Your task to perform on an android device: Open calendar and show me the third week of next month Image 0: 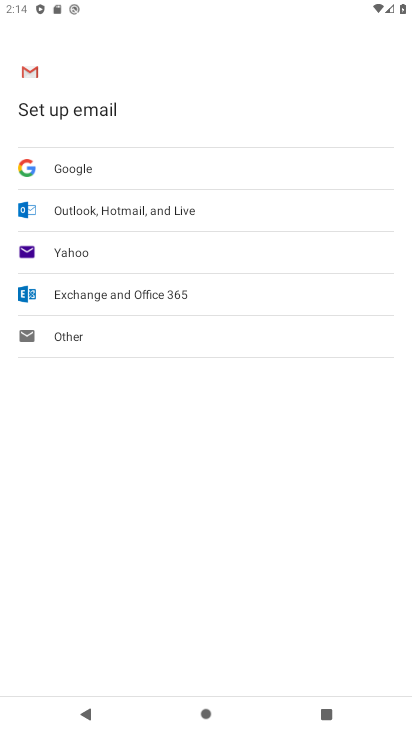
Step 0: press home button
Your task to perform on an android device: Open calendar and show me the third week of next month Image 1: 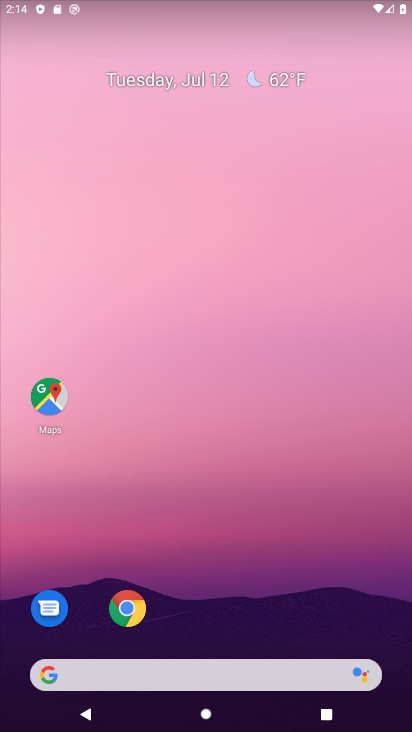
Step 1: drag from (138, 682) to (319, 131)
Your task to perform on an android device: Open calendar and show me the third week of next month Image 2: 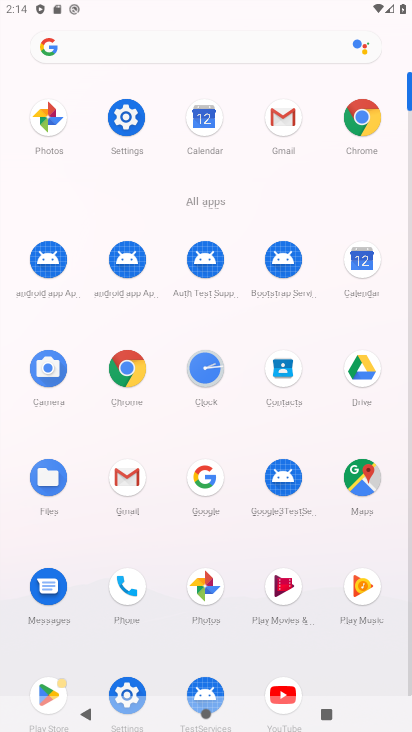
Step 2: click (366, 264)
Your task to perform on an android device: Open calendar and show me the third week of next month Image 3: 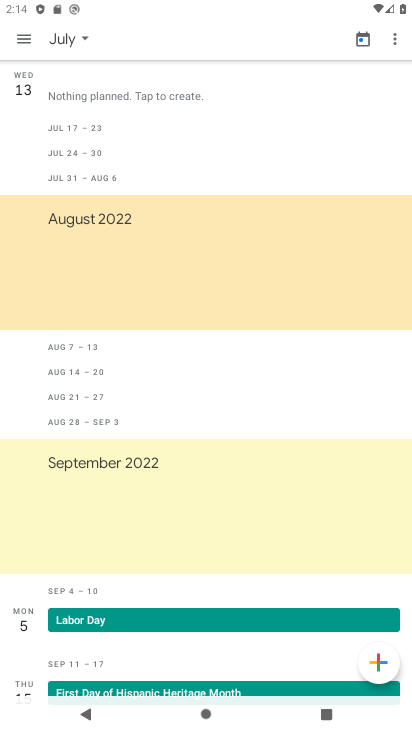
Step 3: click (52, 39)
Your task to perform on an android device: Open calendar and show me the third week of next month Image 4: 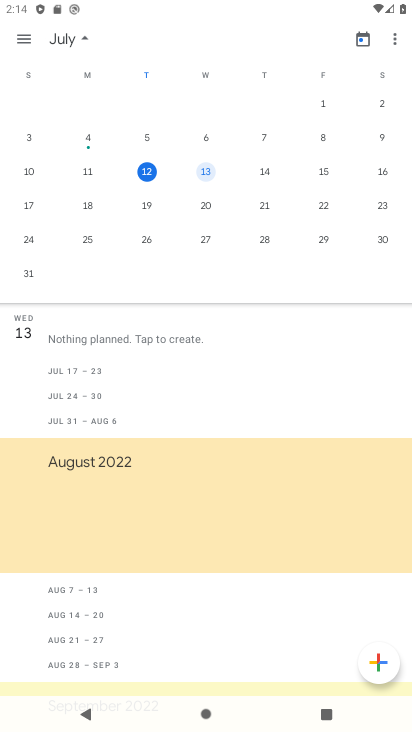
Step 4: drag from (358, 205) to (28, 203)
Your task to perform on an android device: Open calendar and show me the third week of next month Image 5: 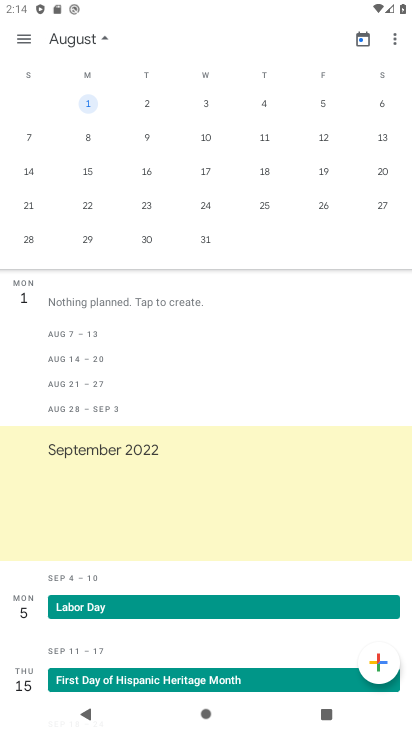
Step 5: click (30, 173)
Your task to perform on an android device: Open calendar and show me the third week of next month Image 6: 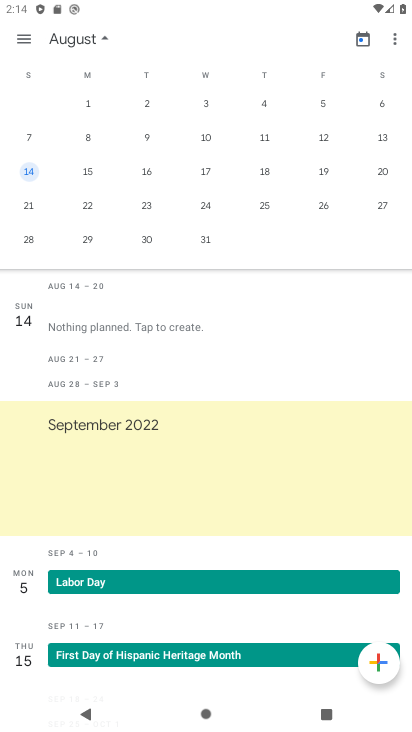
Step 6: click (31, 38)
Your task to perform on an android device: Open calendar and show me the third week of next month Image 7: 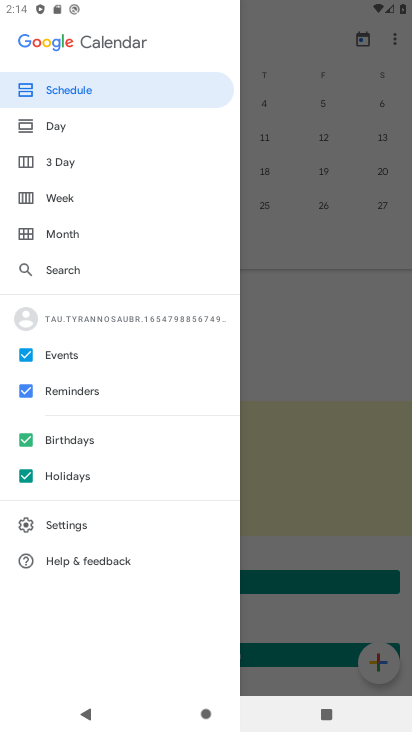
Step 7: click (62, 201)
Your task to perform on an android device: Open calendar and show me the third week of next month Image 8: 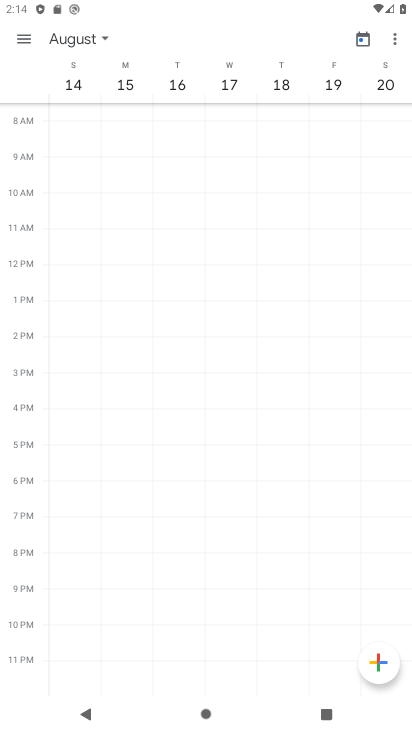
Step 8: task complete